Your task to perform on an android device: set the stopwatch Image 0: 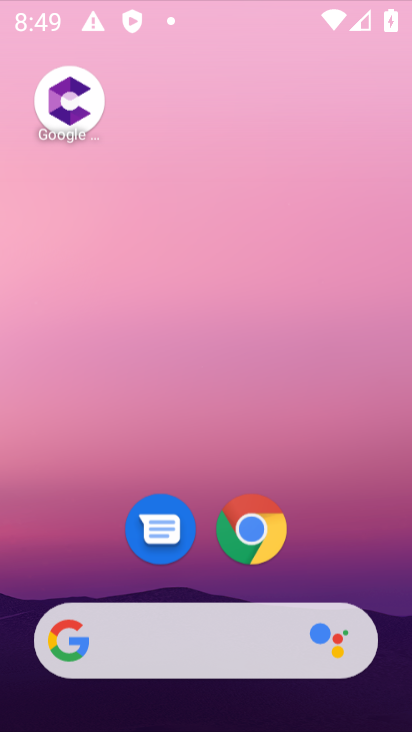
Step 0: drag from (221, 386) to (226, 316)
Your task to perform on an android device: set the stopwatch Image 1: 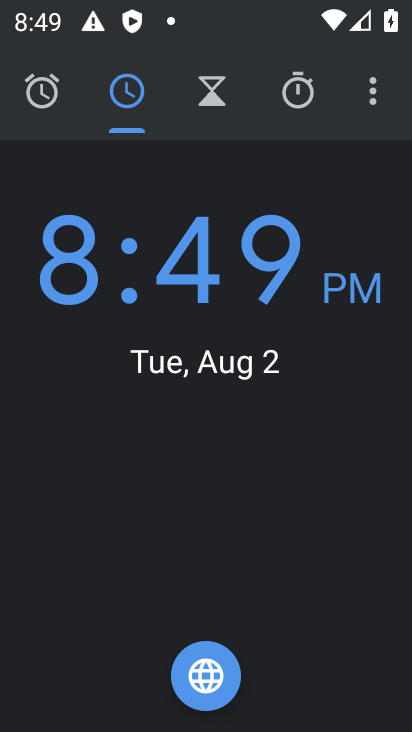
Step 1: click (300, 99)
Your task to perform on an android device: set the stopwatch Image 2: 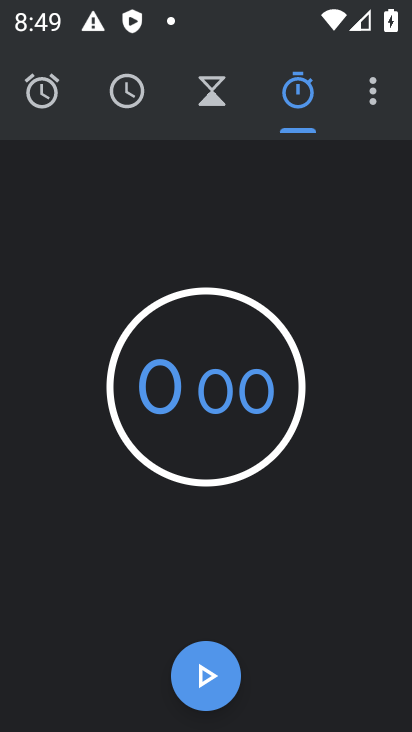
Step 2: click (210, 687)
Your task to perform on an android device: set the stopwatch Image 3: 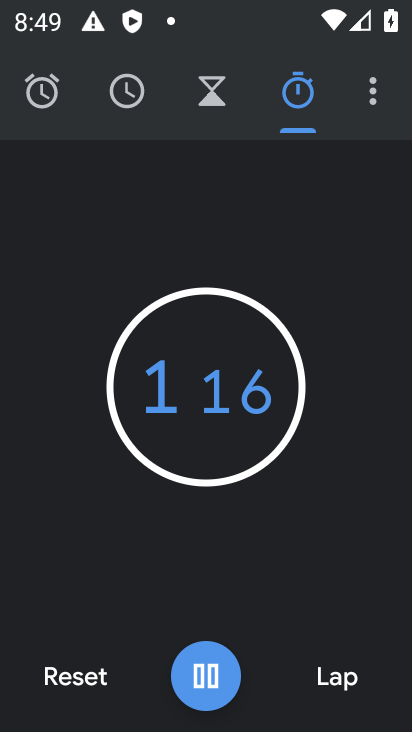
Step 3: task complete